Your task to perform on an android device: Go to Android settings Image 0: 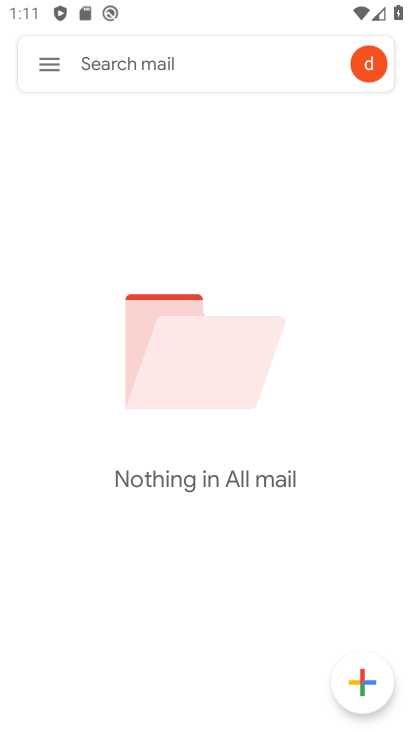
Step 0: press home button
Your task to perform on an android device: Go to Android settings Image 1: 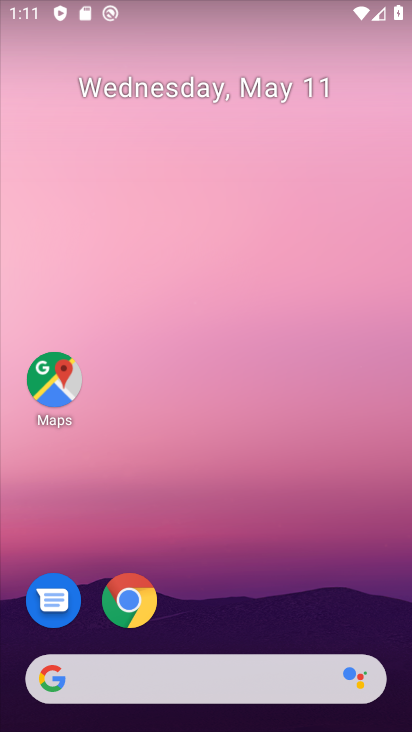
Step 1: drag from (237, 600) to (255, 293)
Your task to perform on an android device: Go to Android settings Image 2: 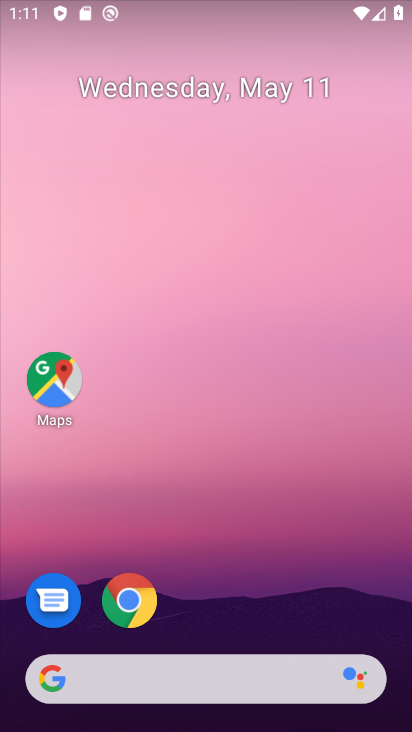
Step 2: drag from (177, 558) to (209, 272)
Your task to perform on an android device: Go to Android settings Image 3: 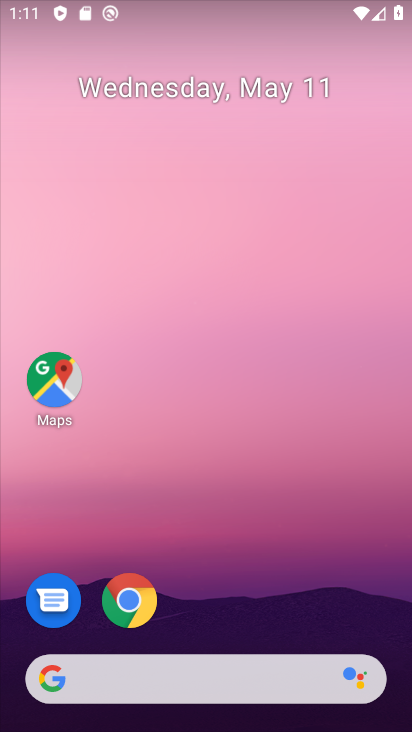
Step 3: drag from (231, 568) to (231, 227)
Your task to perform on an android device: Go to Android settings Image 4: 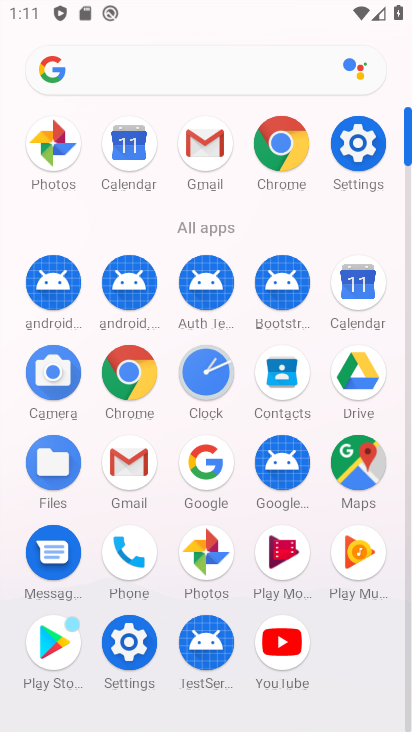
Step 4: click (348, 140)
Your task to perform on an android device: Go to Android settings Image 5: 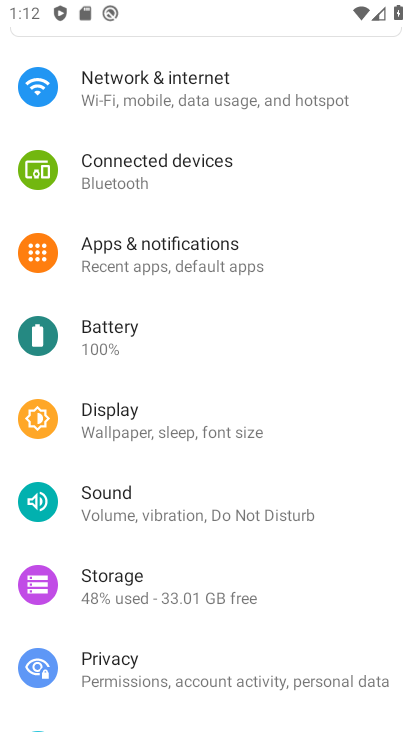
Step 5: task complete